Your task to perform on an android device: Search for seafood restaurants on Google Maps Image 0: 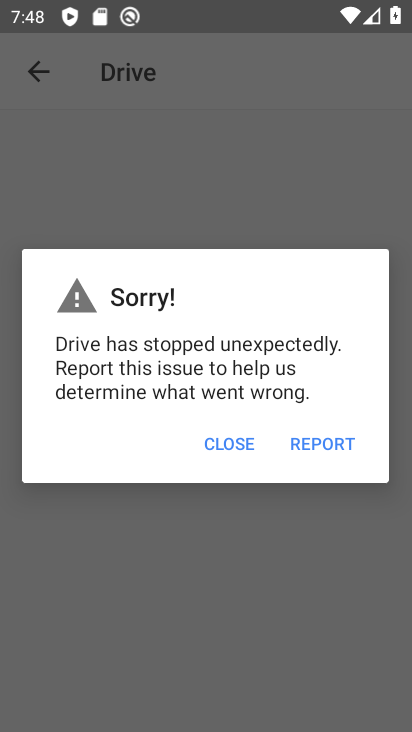
Step 0: press home button
Your task to perform on an android device: Search for seafood restaurants on Google Maps Image 1: 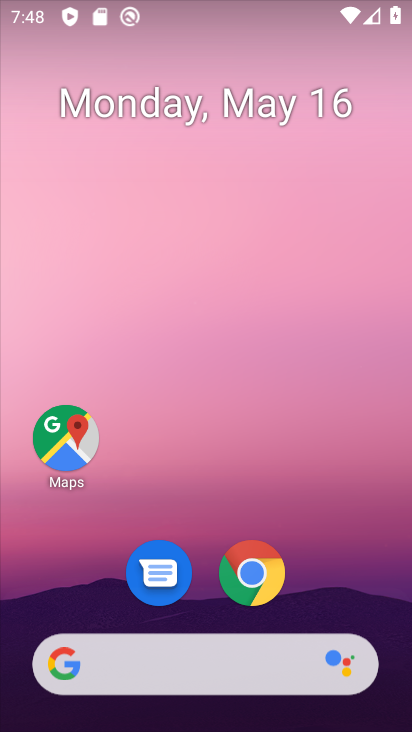
Step 1: click (75, 440)
Your task to perform on an android device: Search for seafood restaurants on Google Maps Image 2: 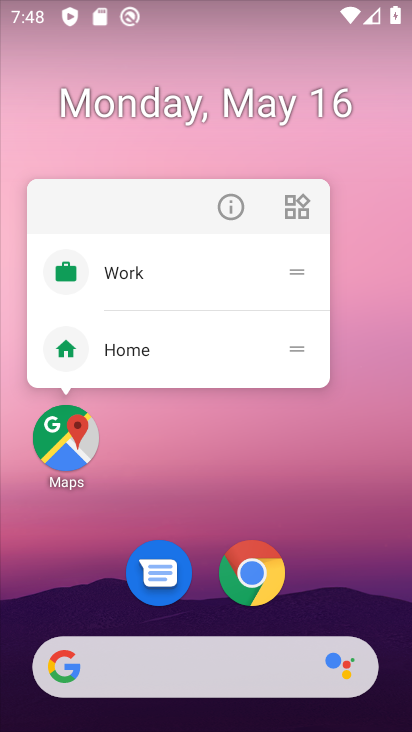
Step 2: click (84, 454)
Your task to perform on an android device: Search for seafood restaurants on Google Maps Image 3: 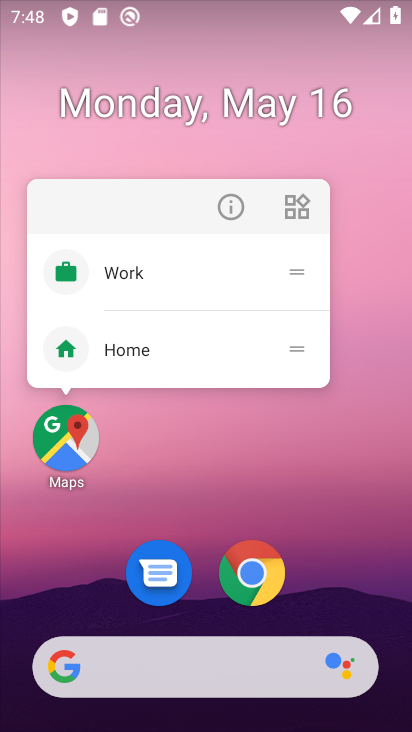
Step 3: click (57, 431)
Your task to perform on an android device: Search for seafood restaurants on Google Maps Image 4: 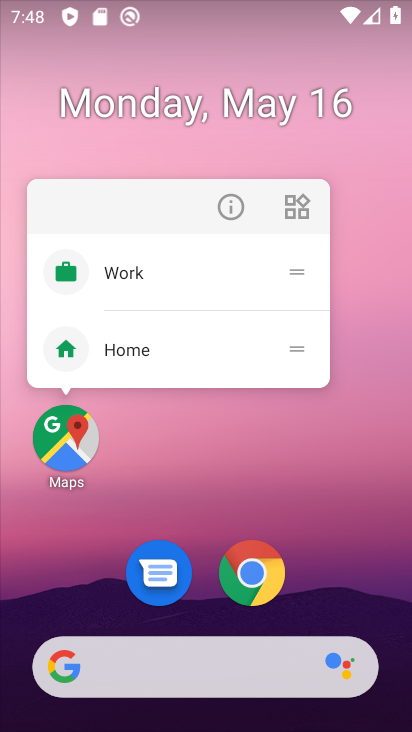
Step 4: click (65, 448)
Your task to perform on an android device: Search for seafood restaurants on Google Maps Image 5: 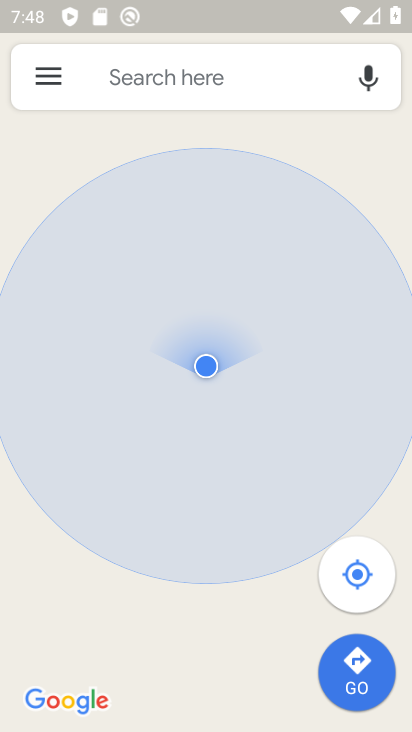
Step 5: click (137, 81)
Your task to perform on an android device: Search for seafood restaurants on Google Maps Image 6: 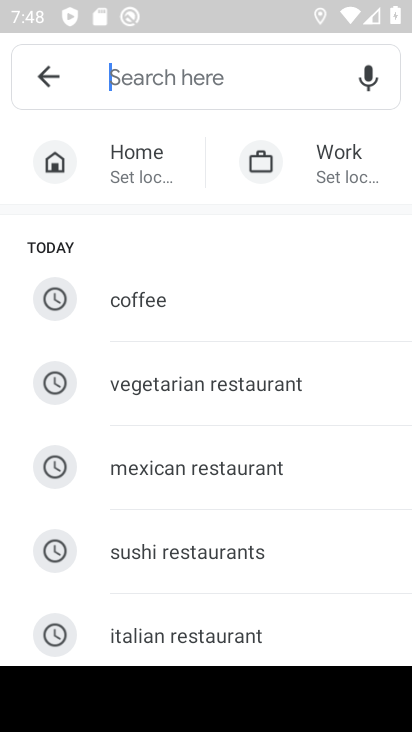
Step 6: drag from (218, 602) to (268, 297)
Your task to perform on an android device: Search for seafood restaurants on Google Maps Image 7: 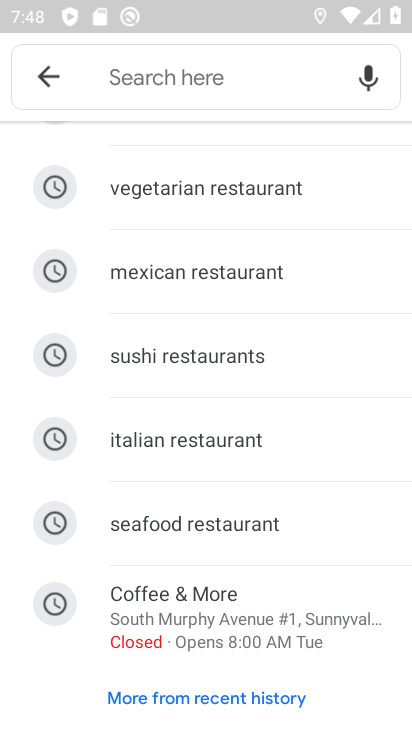
Step 7: click (212, 515)
Your task to perform on an android device: Search for seafood restaurants on Google Maps Image 8: 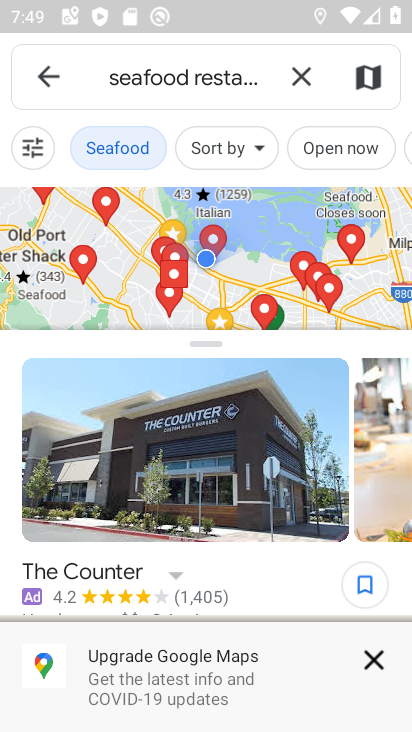
Step 8: task complete